Your task to perform on an android device: open app "Google Chrome" Image 0: 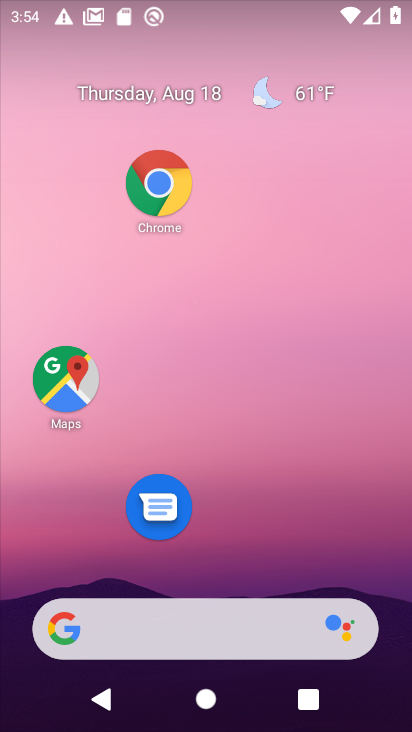
Step 0: drag from (252, 544) to (316, 90)
Your task to perform on an android device: open app "Google Chrome" Image 1: 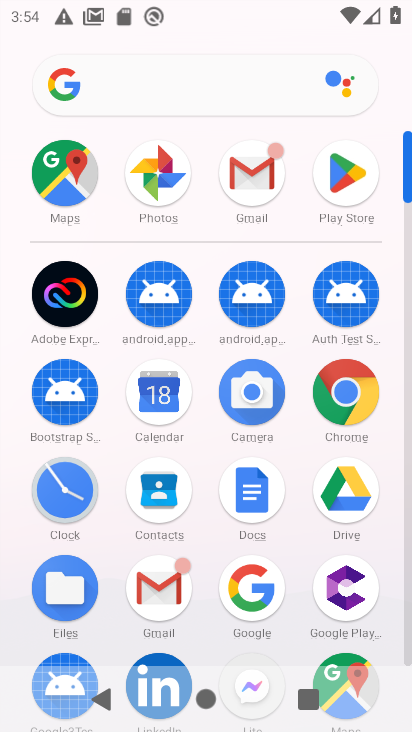
Step 1: click (344, 379)
Your task to perform on an android device: open app "Google Chrome" Image 2: 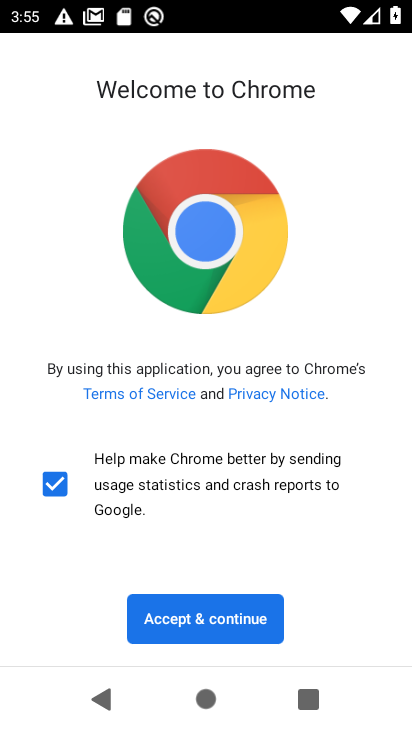
Step 2: task complete